Your task to perform on an android device: Go to Yahoo.com Image 0: 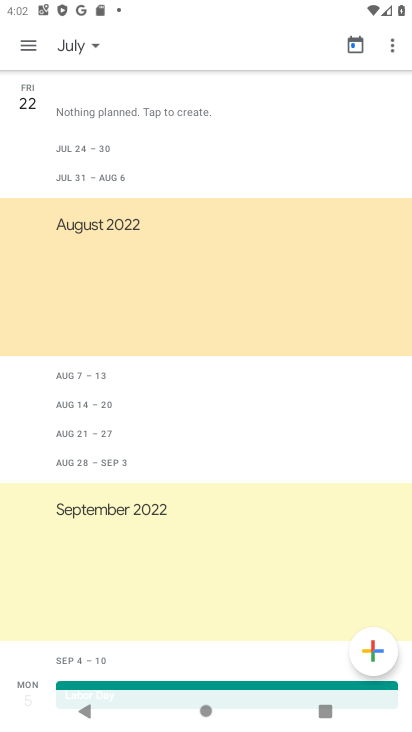
Step 0: press home button
Your task to perform on an android device: Go to Yahoo.com Image 1: 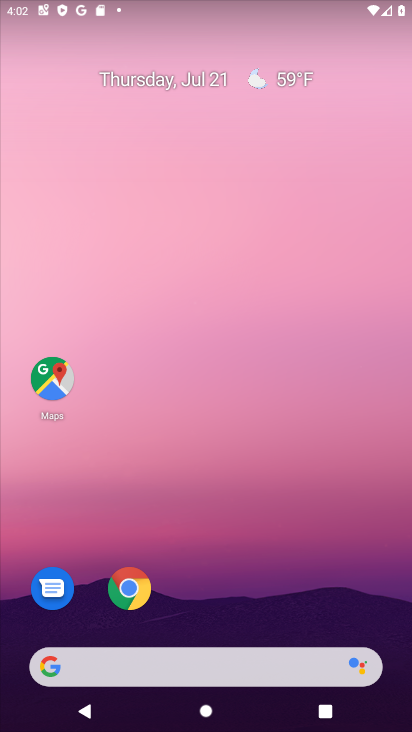
Step 1: click (125, 588)
Your task to perform on an android device: Go to Yahoo.com Image 2: 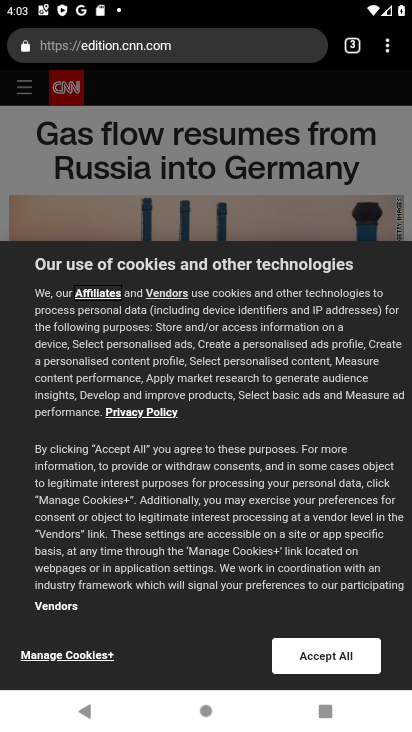
Step 2: click (388, 49)
Your task to perform on an android device: Go to Yahoo.com Image 3: 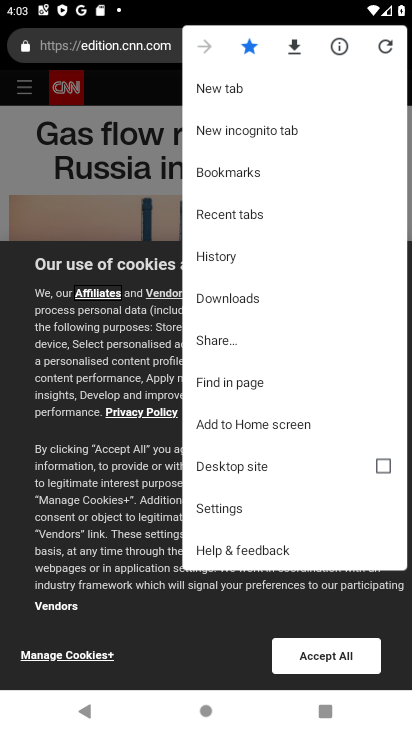
Step 3: click (215, 86)
Your task to perform on an android device: Go to Yahoo.com Image 4: 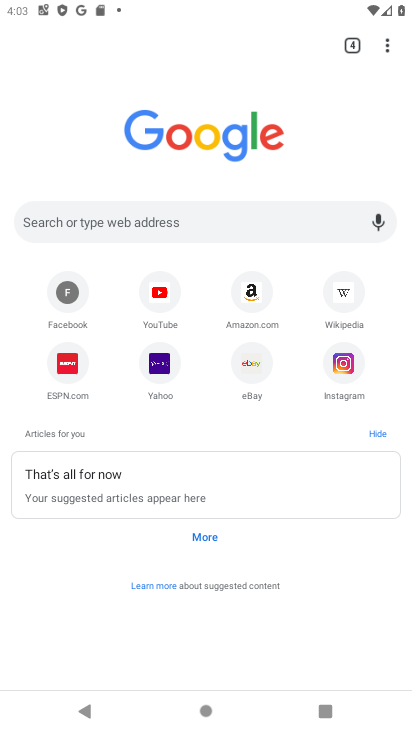
Step 4: click (158, 374)
Your task to perform on an android device: Go to Yahoo.com Image 5: 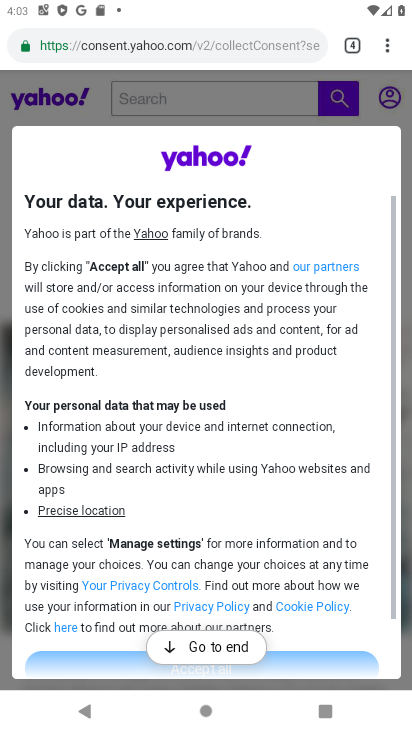
Step 5: task complete